Your task to perform on an android device: open chrome and create a bookmark for the current page Image 0: 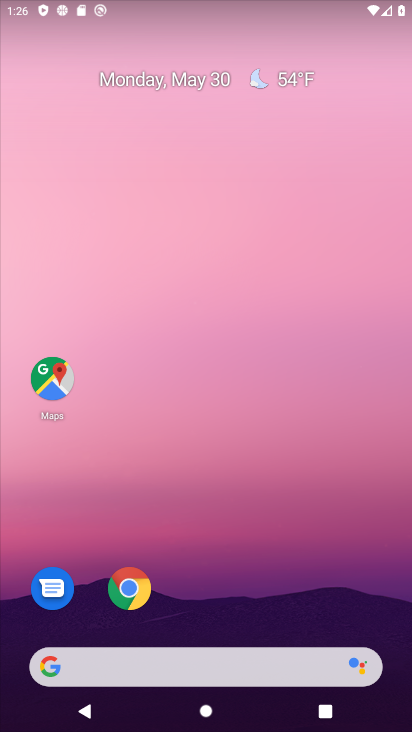
Step 0: click (133, 587)
Your task to perform on an android device: open chrome and create a bookmark for the current page Image 1: 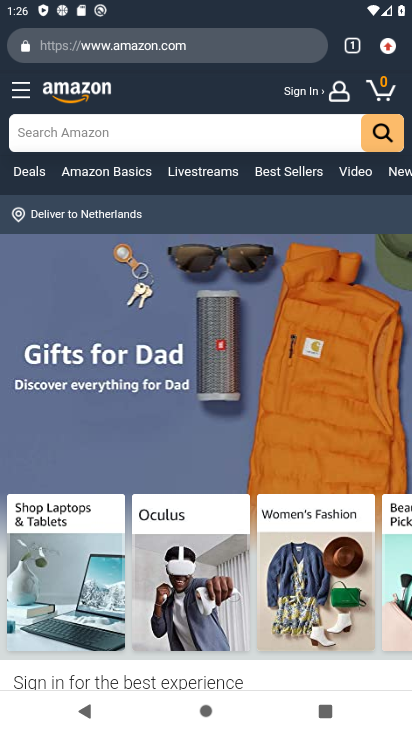
Step 1: click (383, 44)
Your task to perform on an android device: open chrome and create a bookmark for the current page Image 2: 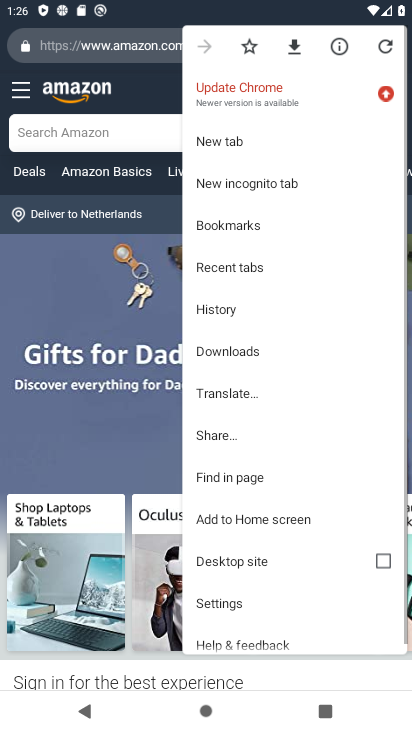
Step 2: click (242, 48)
Your task to perform on an android device: open chrome and create a bookmark for the current page Image 3: 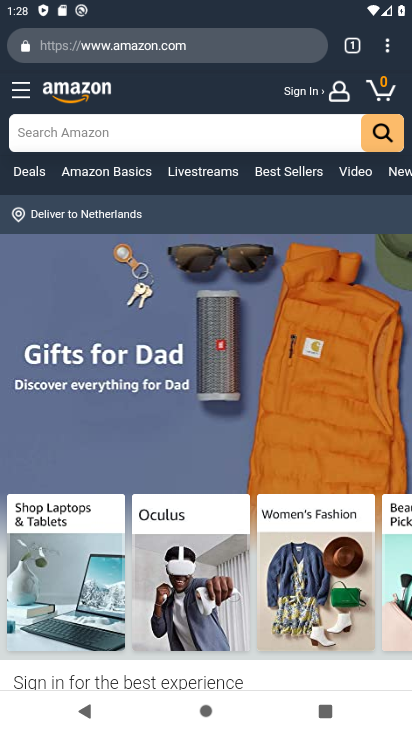
Step 3: task complete